Your task to perform on an android device: Go to network settings Image 0: 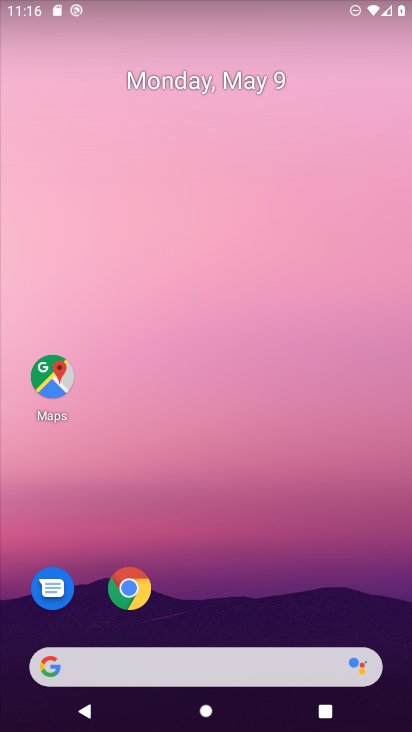
Step 0: drag from (278, 563) to (244, 144)
Your task to perform on an android device: Go to network settings Image 1: 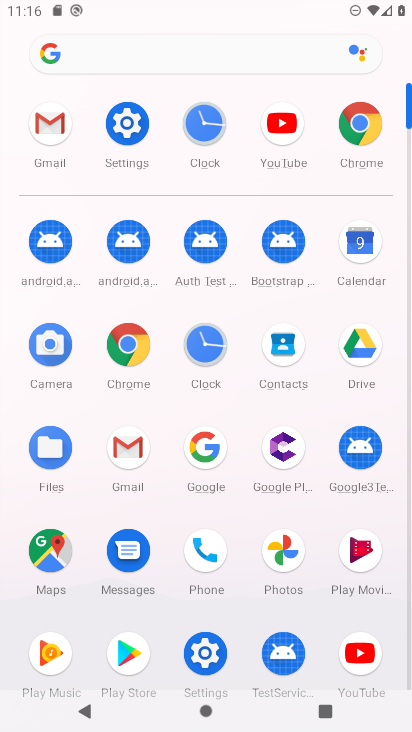
Step 1: click (123, 126)
Your task to perform on an android device: Go to network settings Image 2: 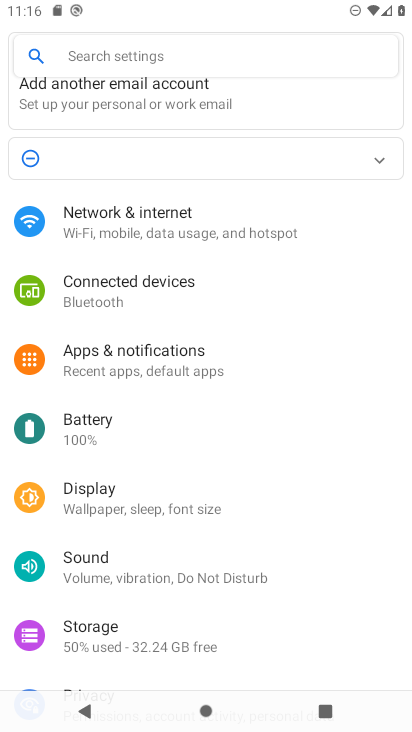
Step 2: click (204, 244)
Your task to perform on an android device: Go to network settings Image 3: 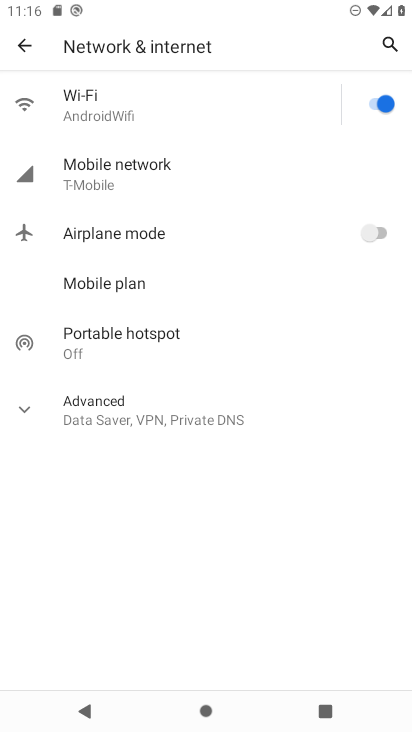
Step 3: task complete